Your task to perform on an android device: add a contact in the contacts app Image 0: 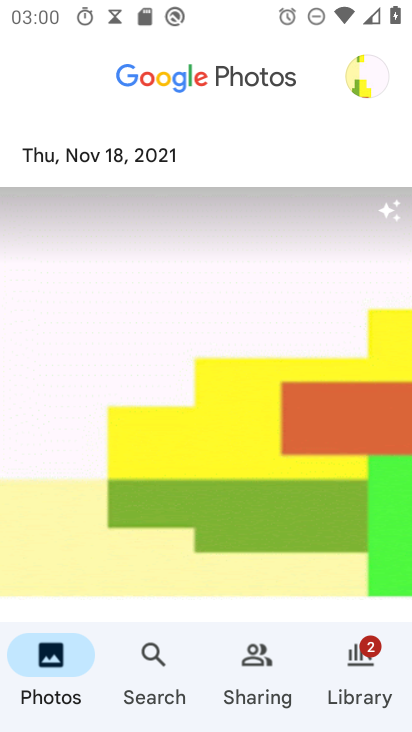
Step 0: press home button
Your task to perform on an android device: add a contact in the contacts app Image 1: 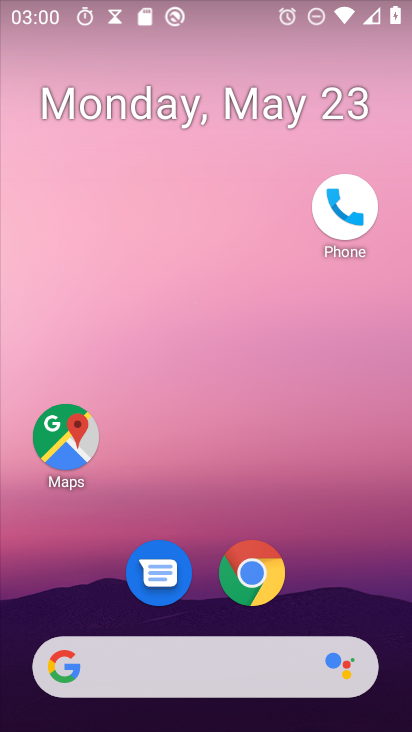
Step 1: drag from (202, 672) to (318, 430)
Your task to perform on an android device: add a contact in the contacts app Image 2: 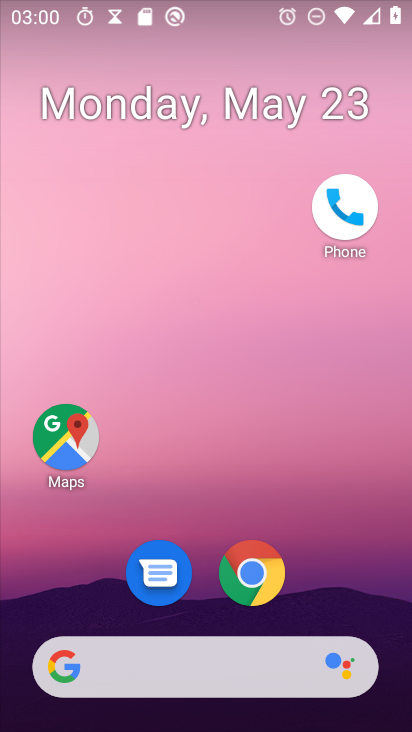
Step 2: drag from (194, 656) to (333, 256)
Your task to perform on an android device: add a contact in the contacts app Image 3: 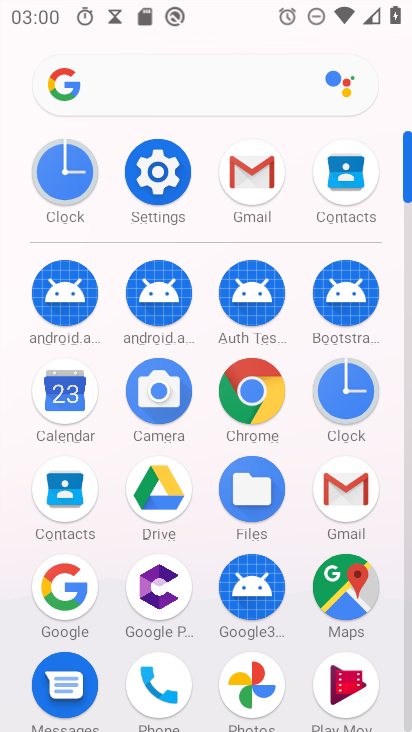
Step 3: click (345, 183)
Your task to perform on an android device: add a contact in the contacts app Image 4: 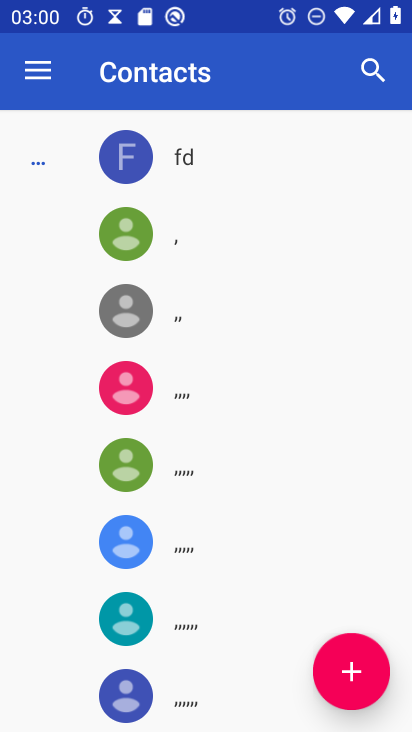
Step 4: click (370, 668)
Your task to perform on an android device: add a contact in the contacts app Image 5: 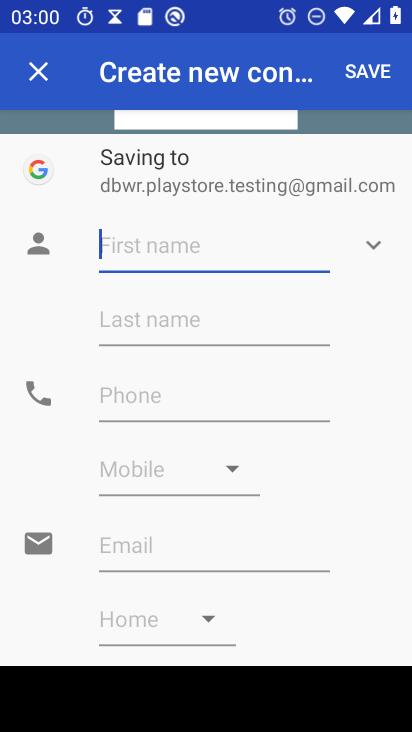
Step 5: type "wwwwfddd"
Your task to perform on an android device: add a contact in the contacts app Image 6: 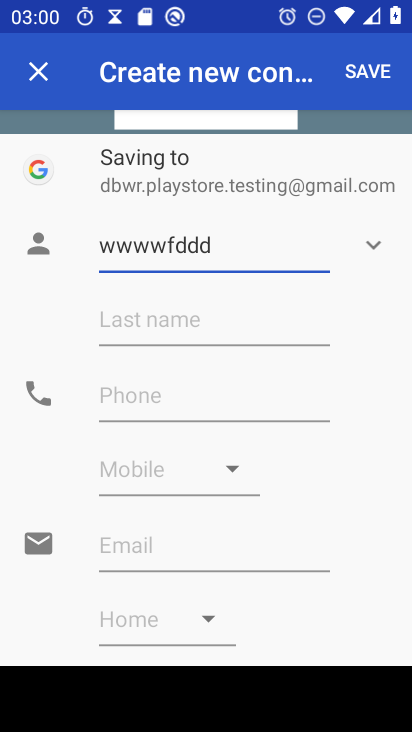
Step 6: click (177, 392)
Your task to perform on an android device: add a contact in the contacts app Image 7: 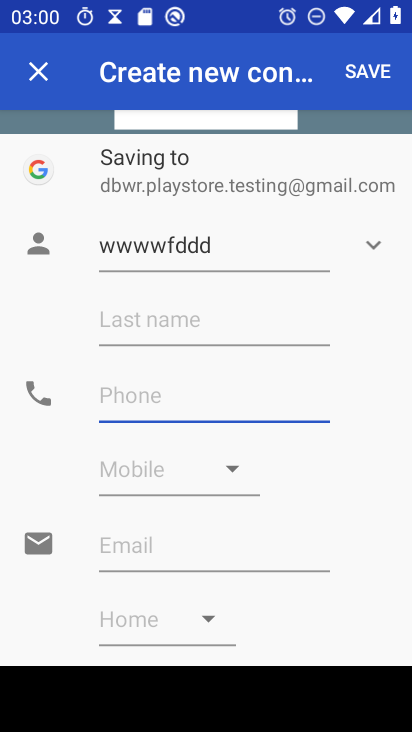
Step 7: type "1233344455"
Your task to perform on an android device: add a contact in the contacts app Image 8: 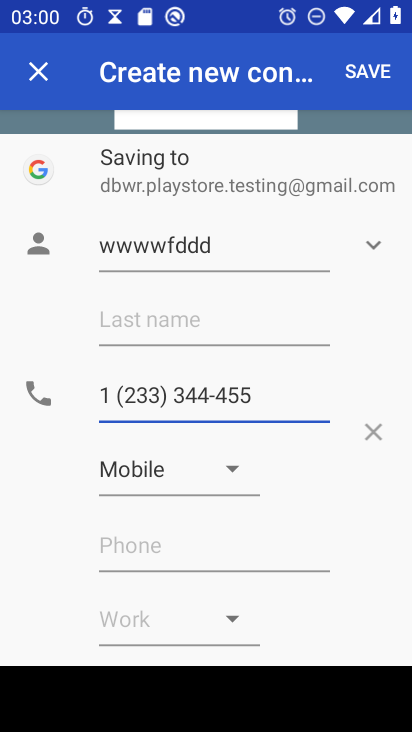
Step 8: click (372, 64)
Your task to perform on an android device: add a contact in the contacts app Image 9: 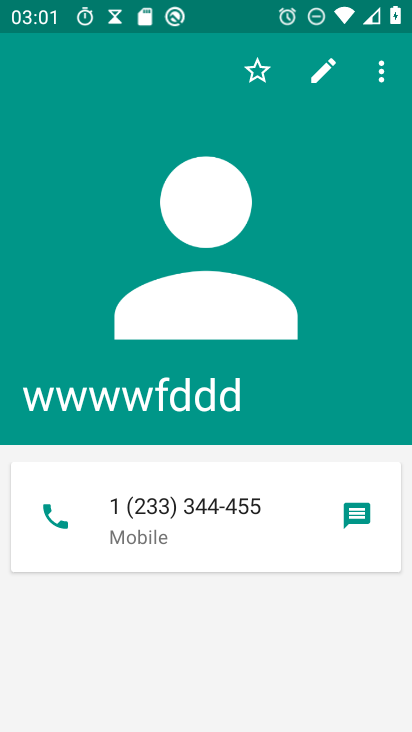
Step 9: task complete